Your task to perform on an android device: Go to ESPN.com Image 0: 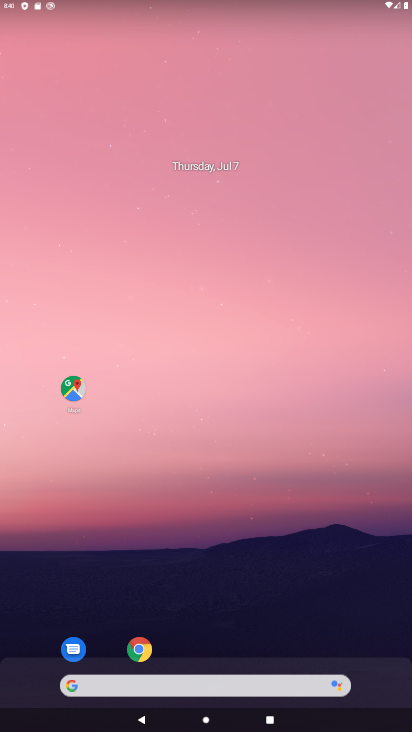
Step 0: drag from (299, 665) to (276, 24)
Your task to perform on an android device: Go to ESPN.com Image 1: 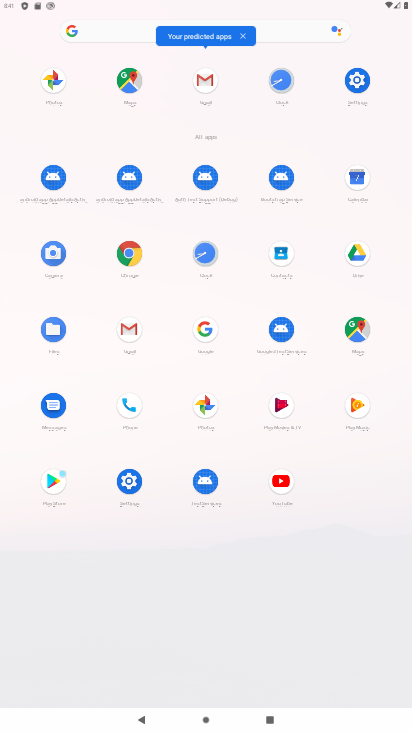
Step 1: click (124, 255)
Your task to perform on an android device: Go to ESPN.com Image 2: 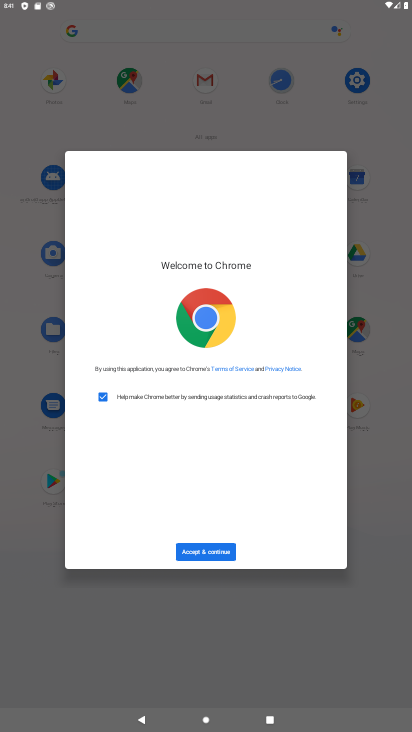
Step 2: click (226, 555)
Your task to perform on an android device: Go to ESPN.com Image 3: 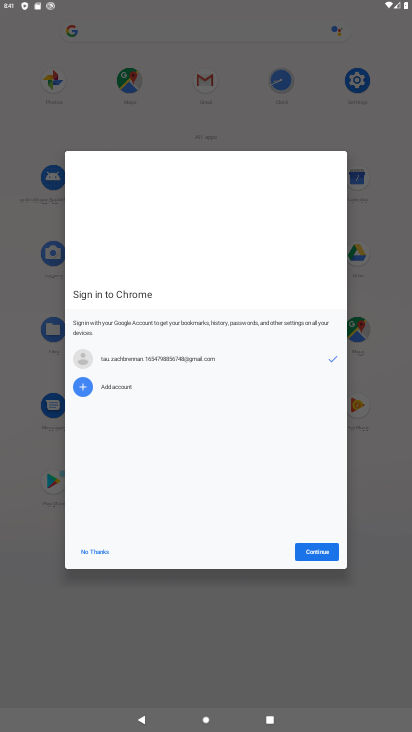
Step 3: click (99, 555)
Your task to perform on an android device: Go to ESPN.com Image 4: 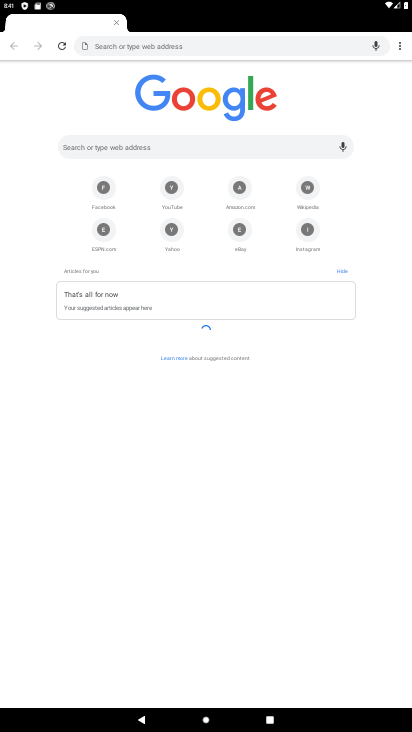
Step 4: click (218, 44)
Your task to perform on an android device: Go to ESPN.com Image 5: 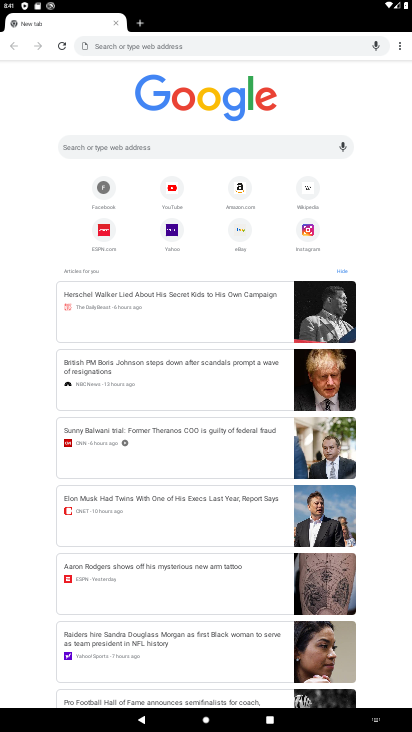
Step 5: click (104, 233)
Your task to perform on an android device: Go to ESPN.com Image 6: 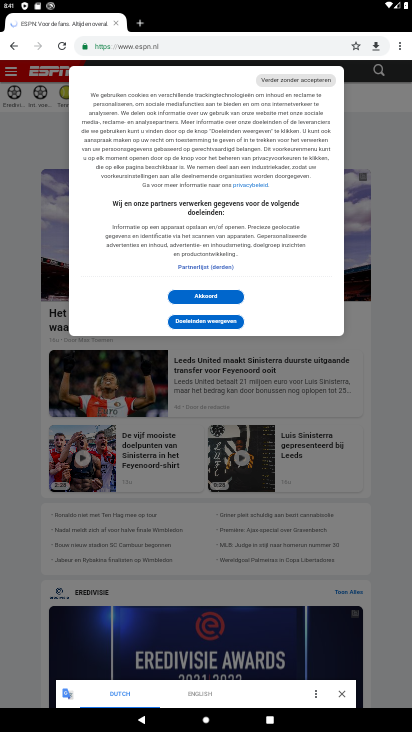
Step 6: task complete